Your task to perform on an android device: Open Yahoo.com Image 0: 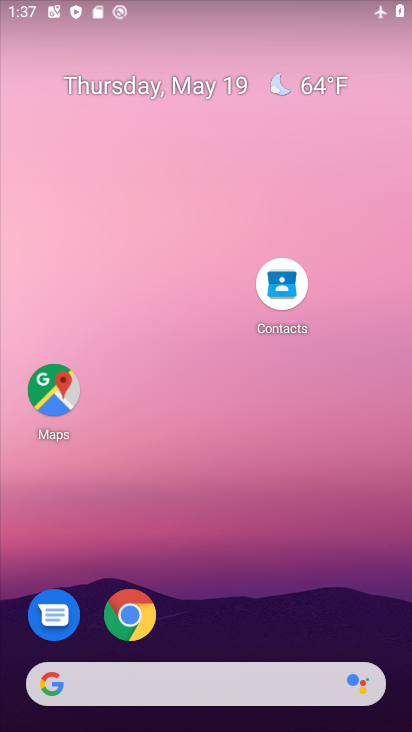
Step 0: click (401, 20)
Your task to perform on an android device: Open Yahoo.com Image 1: 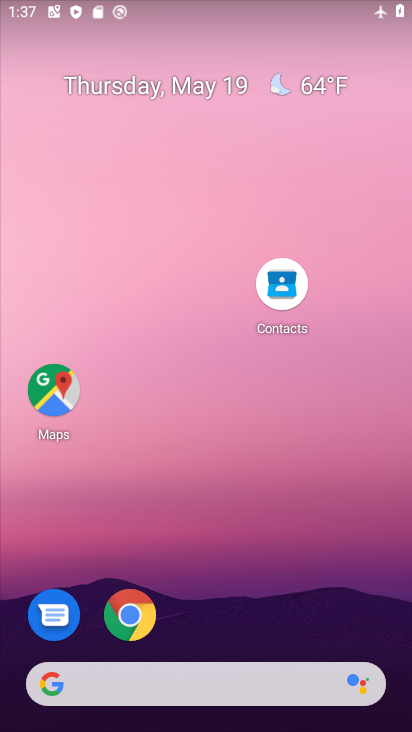
Step 1: press home button
Your task to perform on an android device: Open Yahoo.com Image 2: 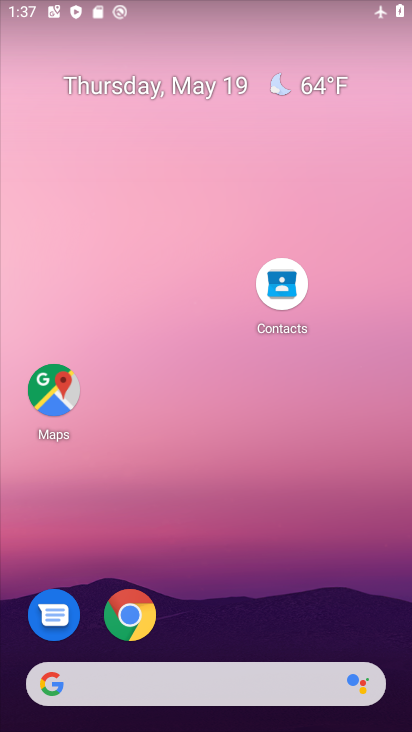
Step 2: drag from (195, 617) to (223, 105)
Your task to perform on an android device: Open Yahoo.com Image 3: 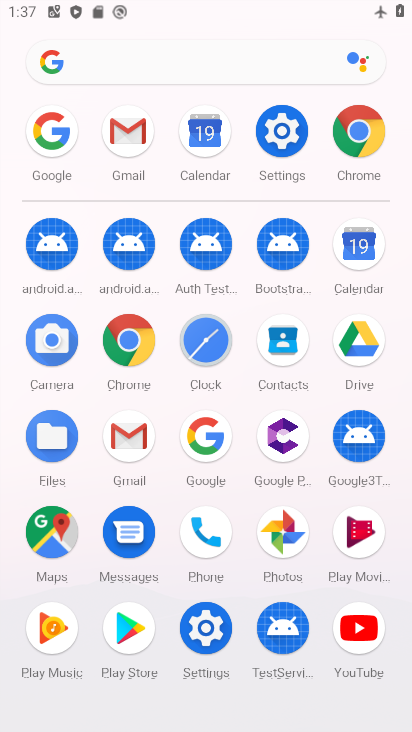
Step 3: click (367, 139)
Your task to perform on an android device: Open Yahoo.com Image 4: 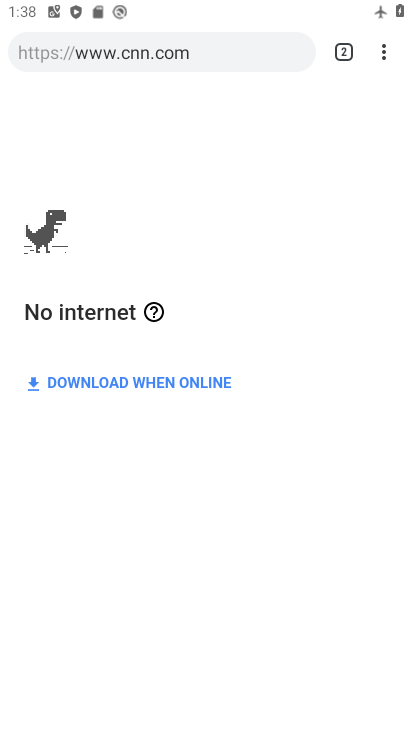
Step 4: task complete